Your task to perform on an android device: Turn on the flashlight Image 0: 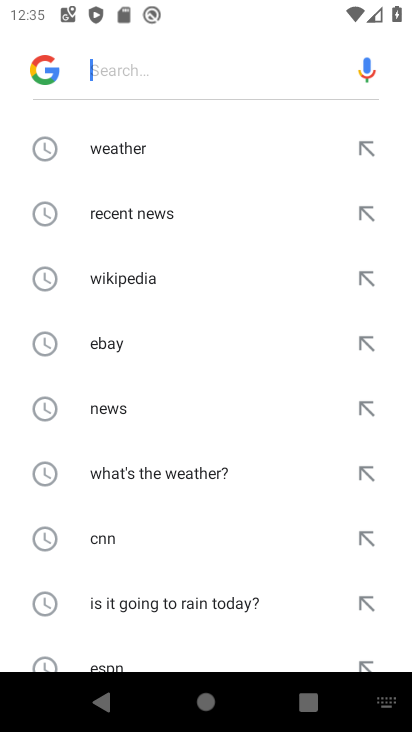
Step 0: press home button
Your task to perform on an android device: Turn on the flashlight Image 1: 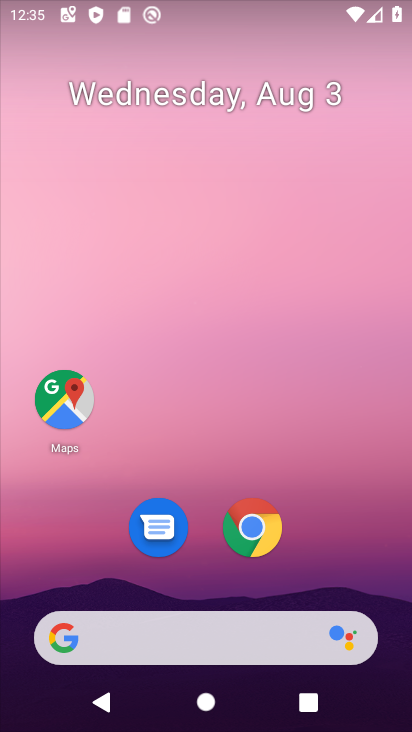
Step 1: drag from (179, 602) to (67, 10)
Your task to perform on an android device: Turn on the flashlight Image 2: 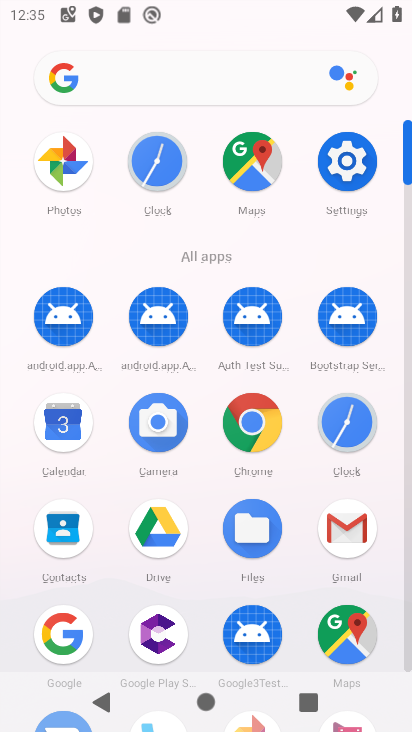
Step 2: click (357, 189)
Your task to perform on an android device: Turn on the flashlight Image 3: 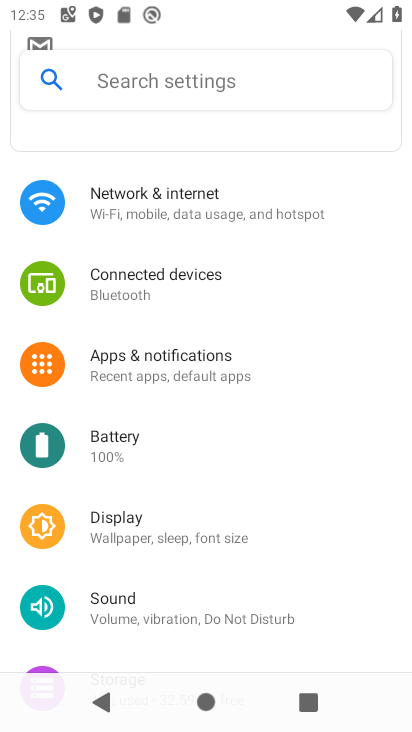
Step 3: click (202, 80)
Your task to perform on an android device: Turn on the flashlight Image 4: 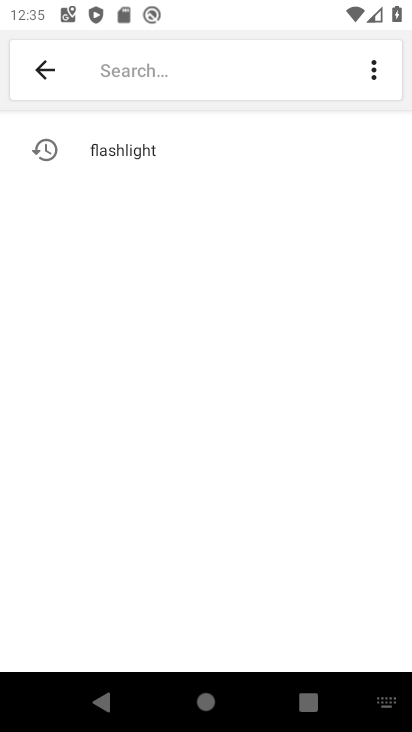
Step 4: type "flashl"
Your task to perform on an android device: Turn on the flashlight Image 5: 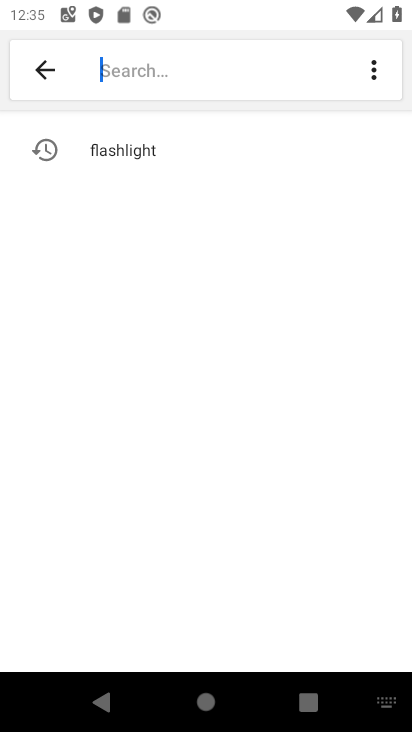
Step 5: click (127, 164)
Your task to perform on an android device: Turn on the flashlight Image 6: 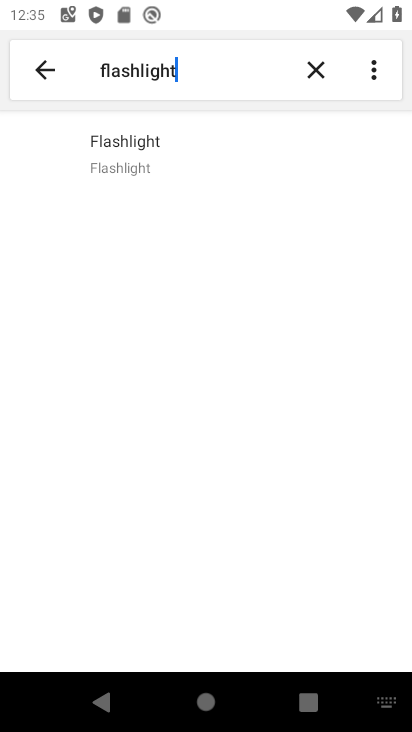
Step 6: click (152, 139)
Your task to perform on an android device: Turn on the flashlight Image 7: 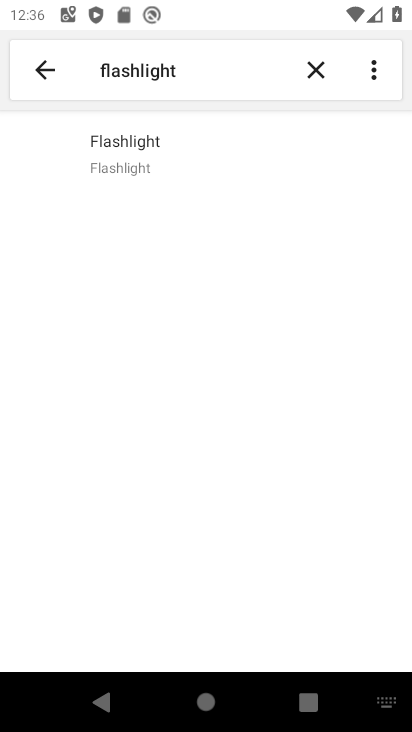
Step 7: task complete